Your task to perform on an android device: turn off notifications in google photos Image 0: 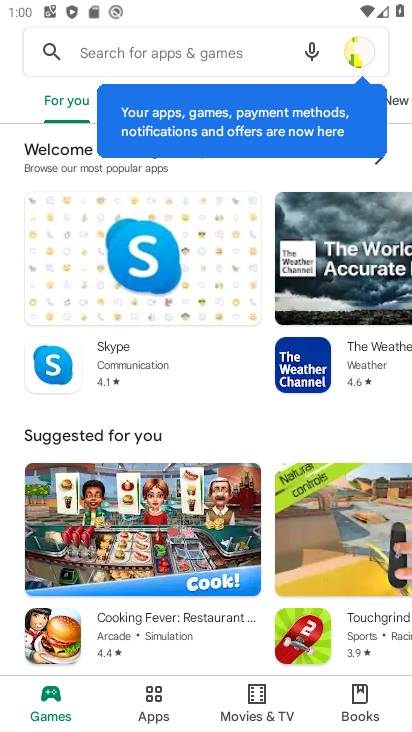
Step 0: press home button
Your task to perform on an android device: turn off notifications in google photos Image 1: 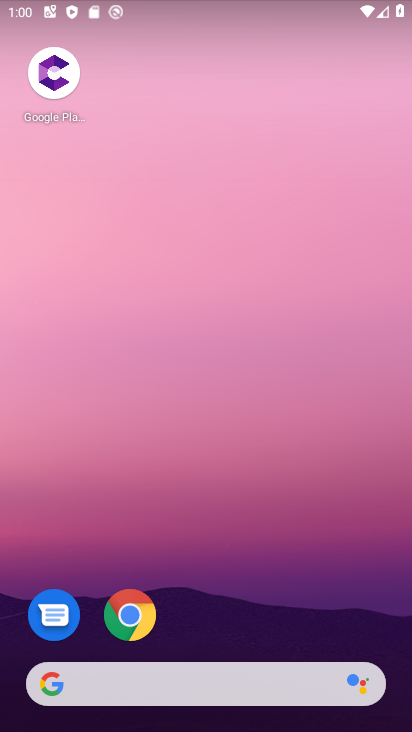
Step 1: drag from (181, 658) to (242, 117)
Your task to perform on an android device: turn off notifications in google photos Image 2: 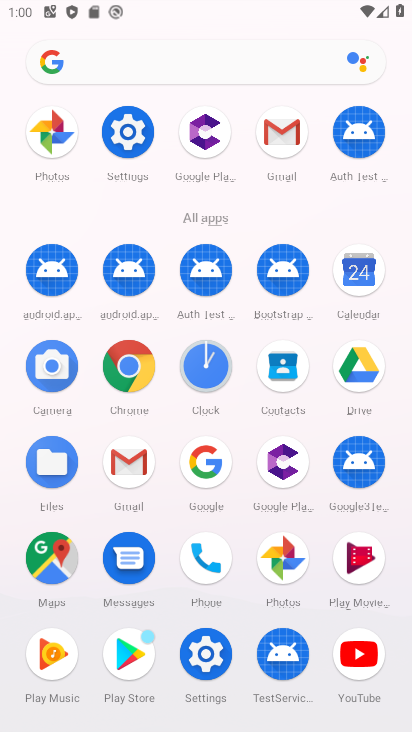
Step 2: click (281, 561)
Your task to perform on an android device: turn off notifications in google photos Image 3: 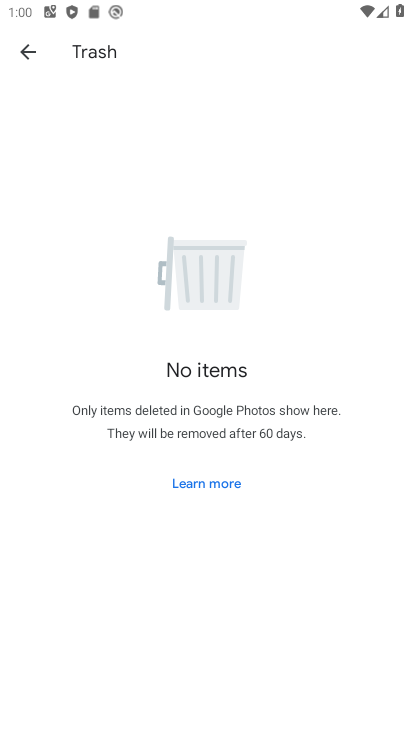
Step 3: click (20, 47)
Your task to perform on an android device: turn off notifications in google photos Image 4: 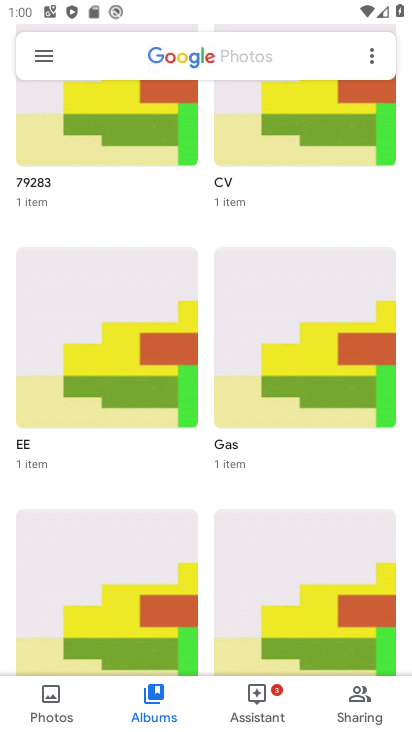
Step 4: click (45, 56)
Your task to perform on an android device: turn off notifications in google photos Image 5: 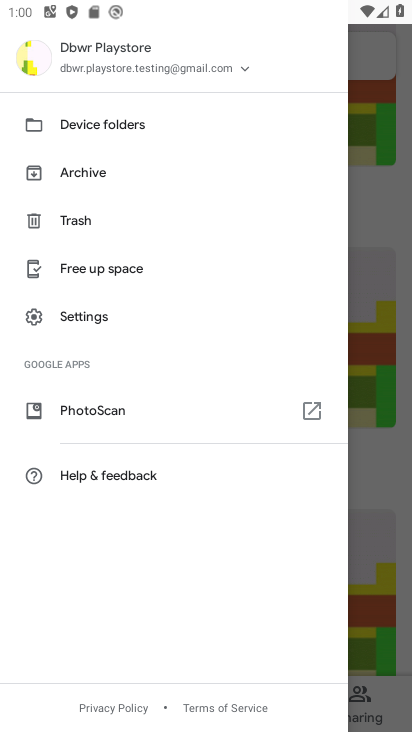
Step 5: click (92, 320)
Your task to perform on an android device: turn off notifications in google photos Image 6: 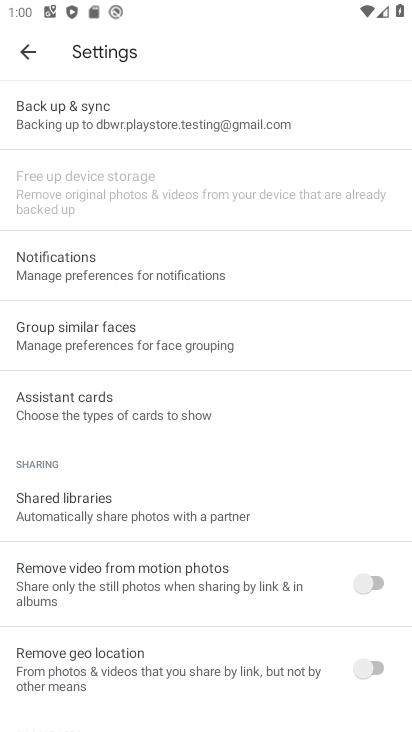
Step 6: click (76, 275)
Your task to perform on an android device: turn off notifications in google photos Image 7: 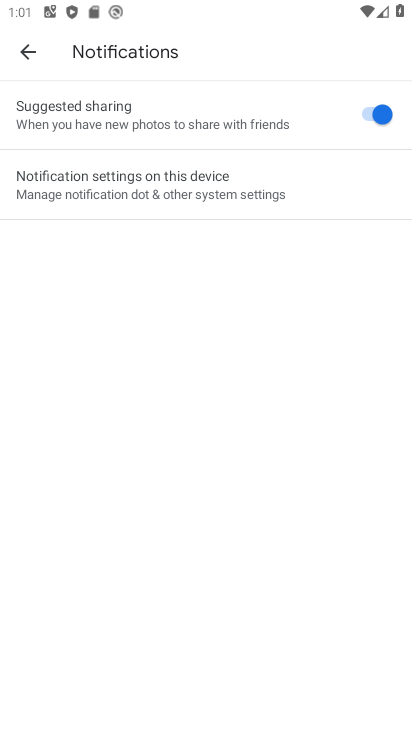
Step 7: click (359, 114)
Your task to perform on an android device: turn off notifications in google photos Image 8: 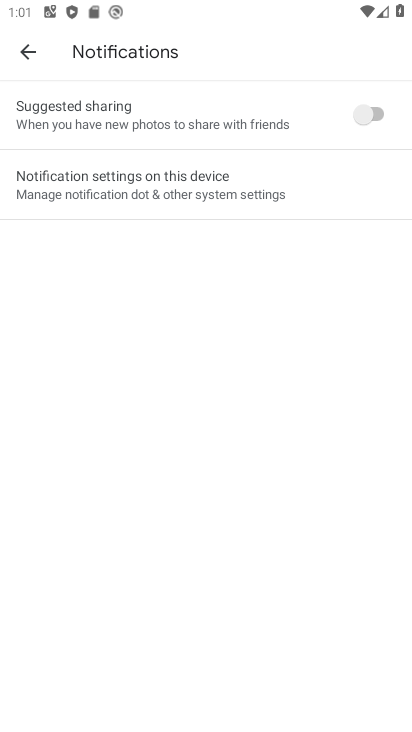
Step 8: task complete